Your task to perform on an android device: Add apple airpods to the cart on ebay.com Image 0: 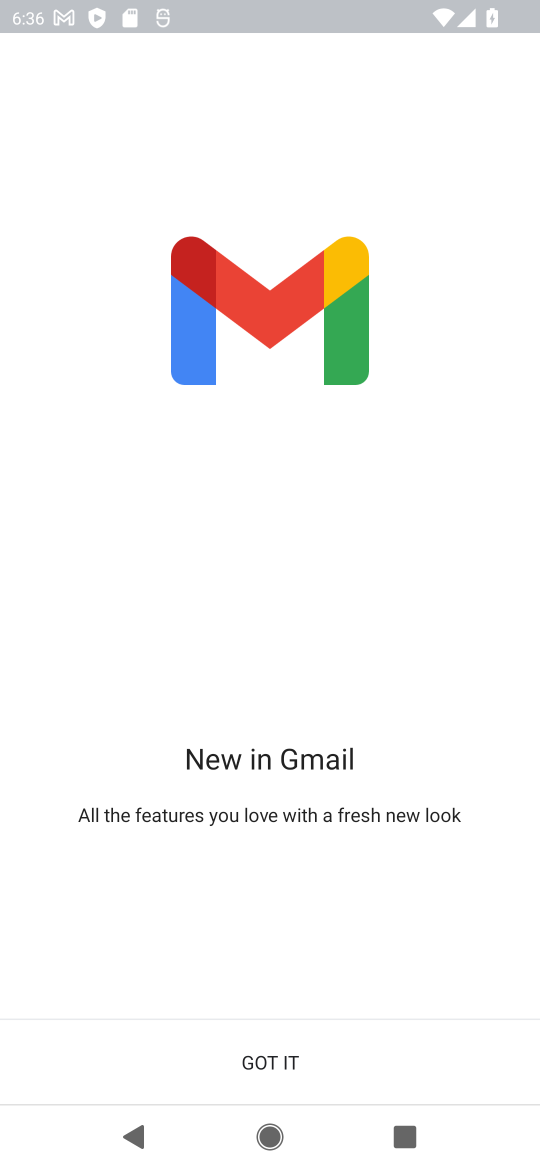
Step 0: press home button
Your task to perform on an android device: Add apple airpods to the cart on ebay.com Image 1: 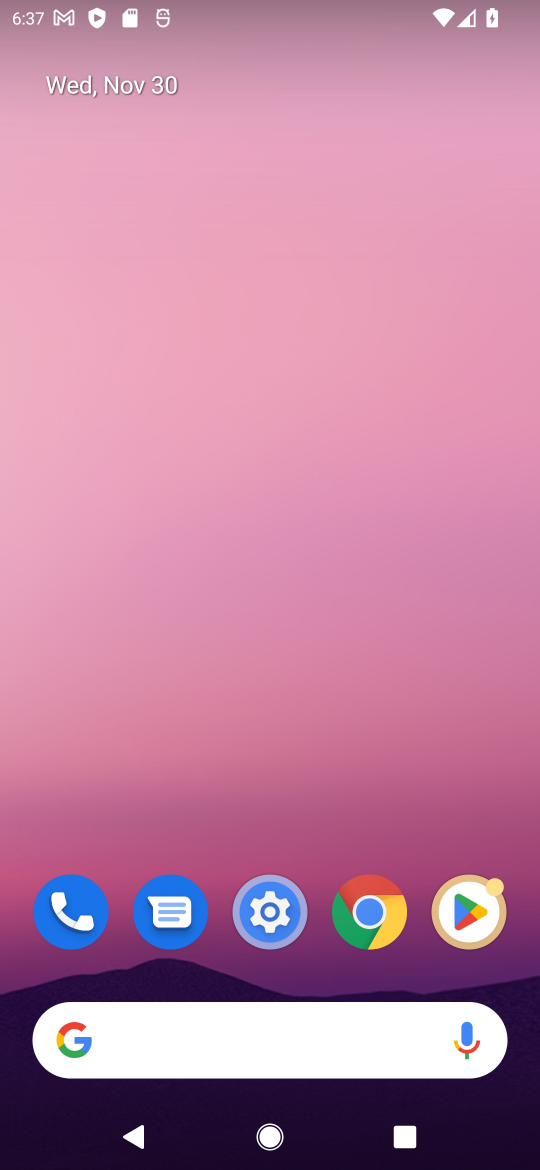
Step 1: click (303, 1039)
Your task to perform on an android device: Add apple airpods to the cart on ebay.com Image 2: 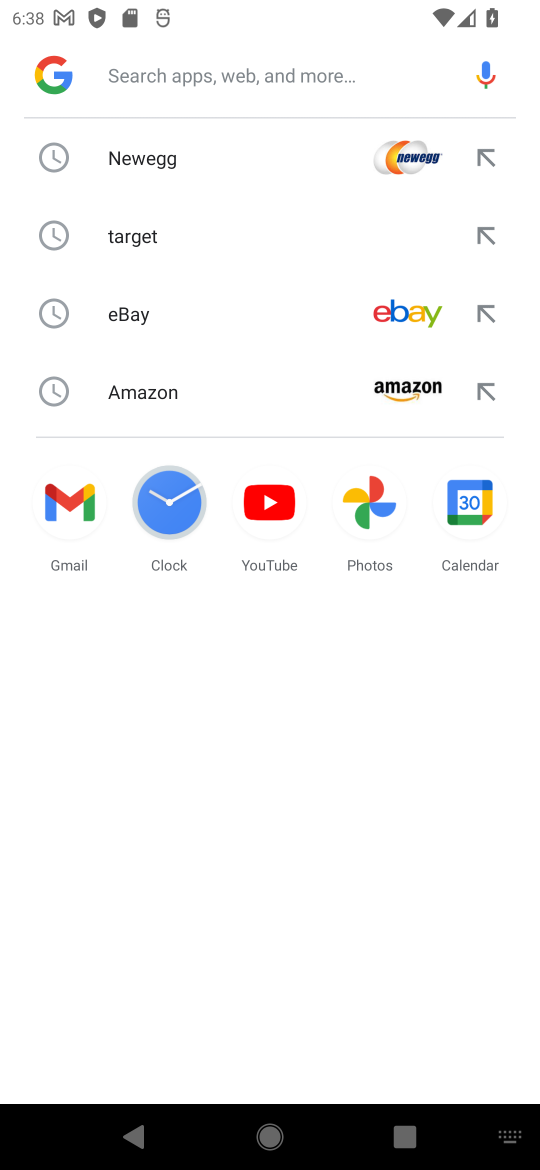
Step 2: click (135, 310)
Your task to perform on an android device: Add apple airpods to the cart on ebay.com Image 3: 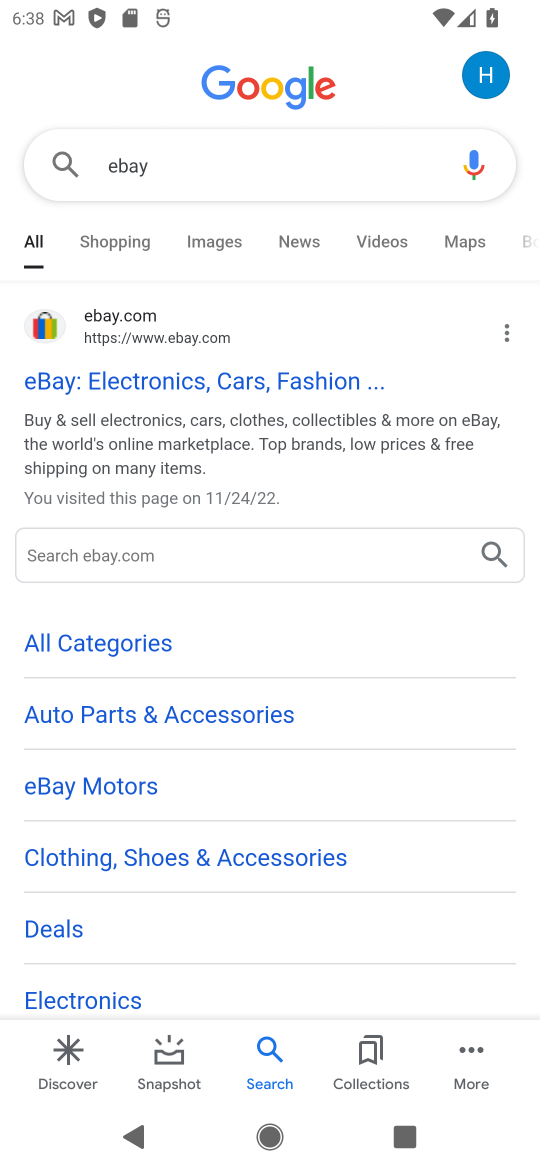
Step 3: click (158, 374)
Your task to perform on an android device: Add apple airpods to the cart on ebay.com Image 4: 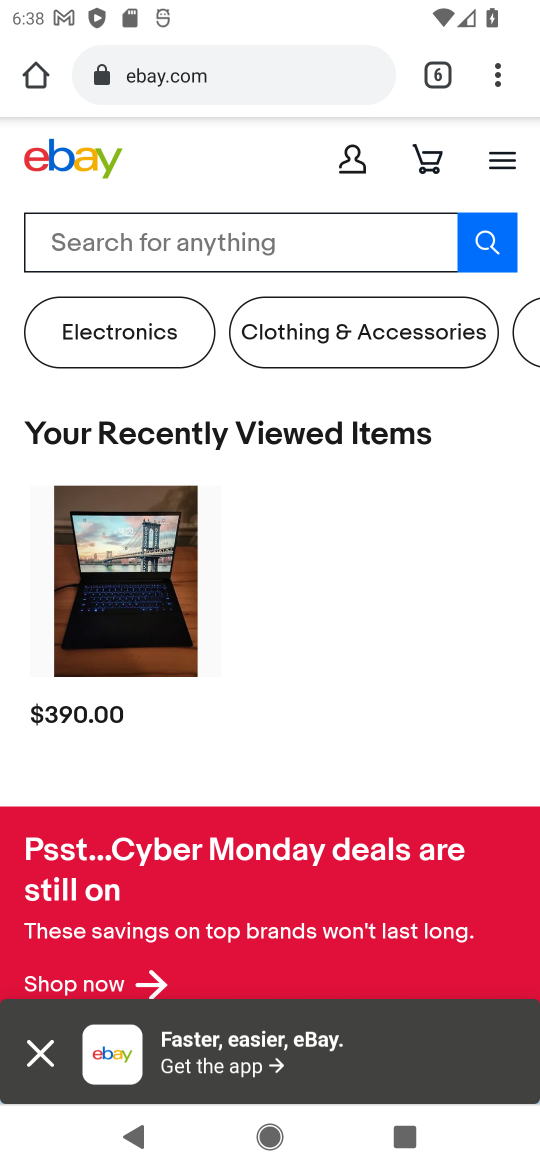
Step 4: click (146, 233)
Your task to perform on an android device: Add apple airpods to the cart on ebay.com Image 5: 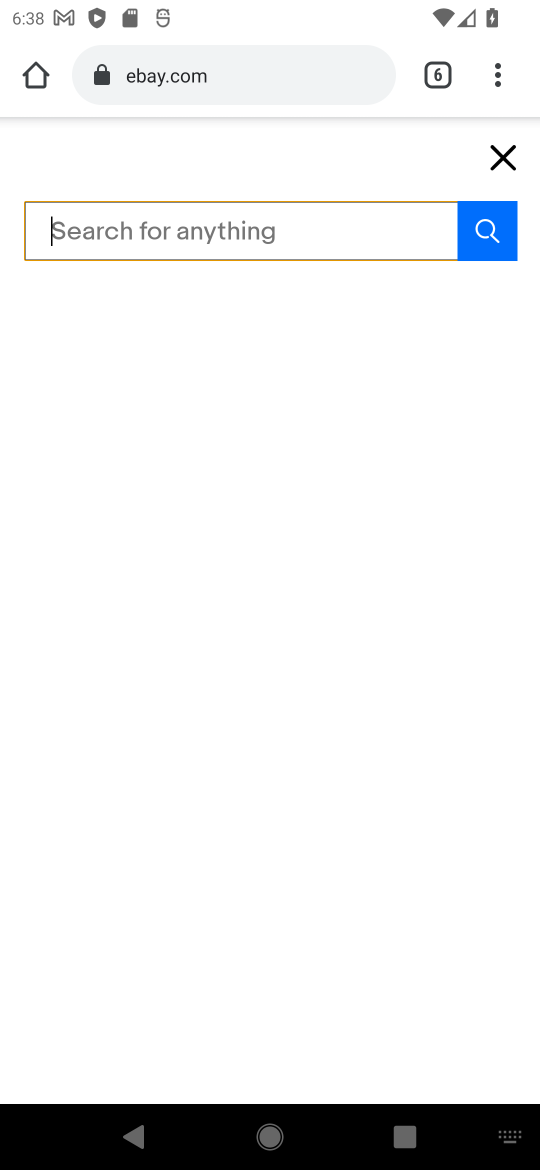
Step 5: type "apple airpods "
Your task to perform on an android device: Add apple airpods to the cart on ebay.com Image 6: 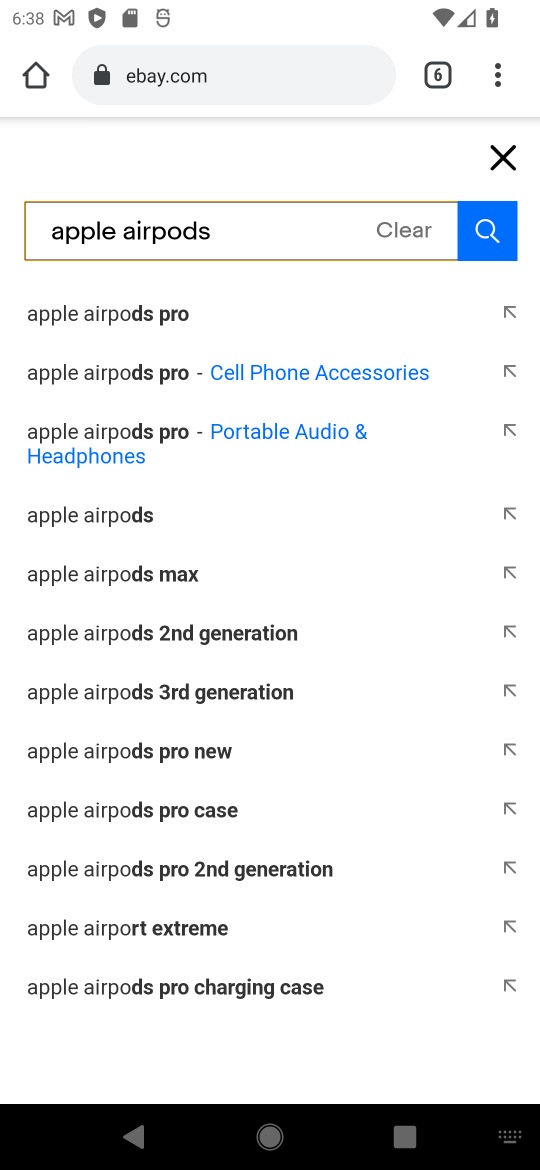
Step 6: click (94, 307)
Your task to perform on an android device: Add apple airpods to the cart on ebay.com Image 7: 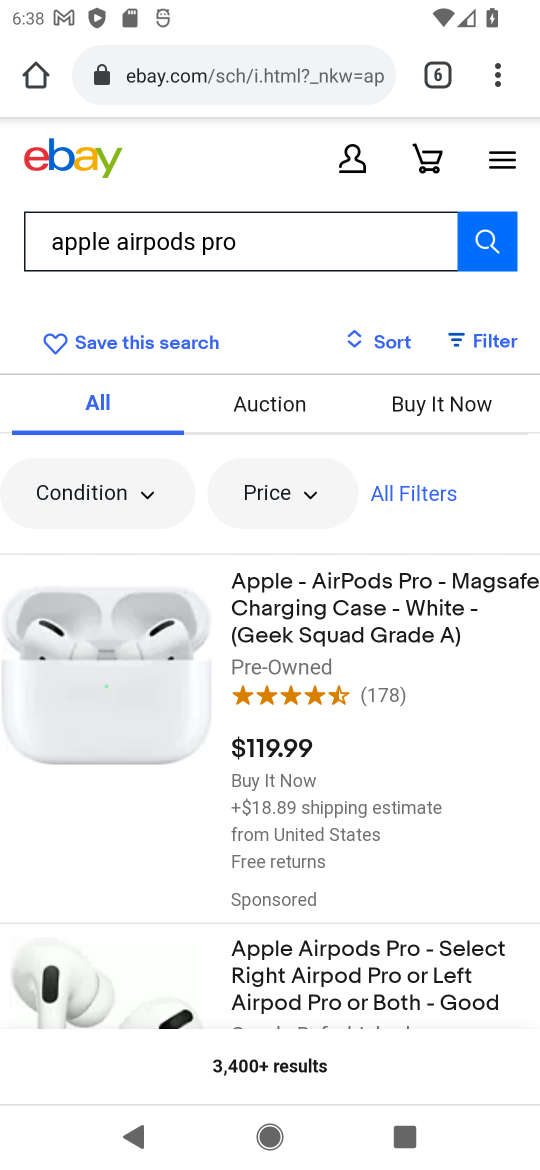
Step 7: click (275, 628)
Your task to perform on an android device: Add apple airpods to the cart on ebay.com Image 8: 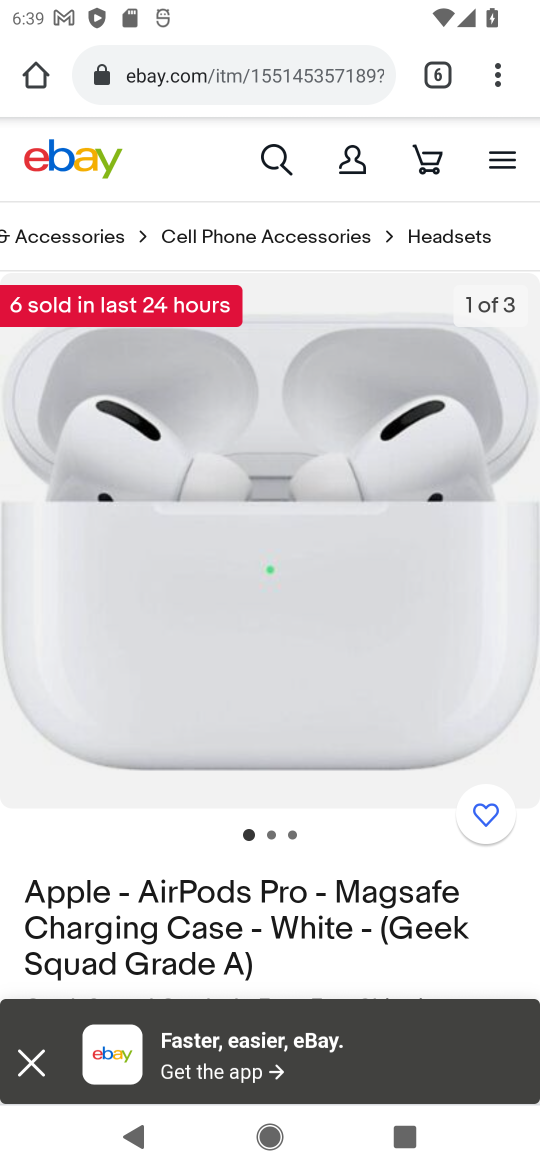
Step 8: drag from (316, 822) to (308, 525)
Your task to perform on an android device: Add apple airpods to the cart on ebay.com Image 9: 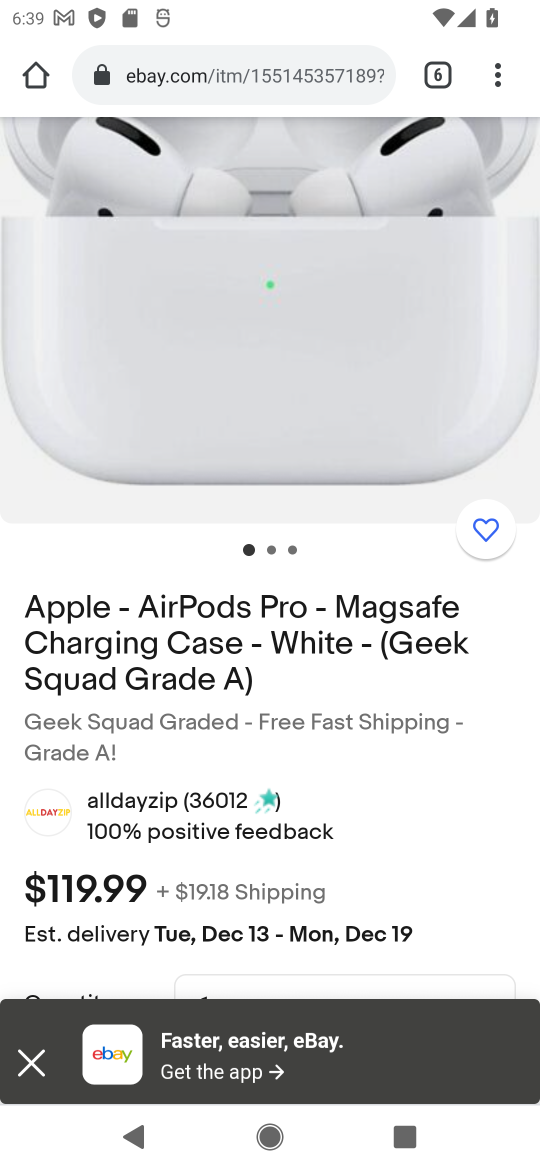
Step 9: drag from (354, 812) to (334, 491)
Your task to perform on an android device: Add apple airpods to the cart on ebay.com Image 10: 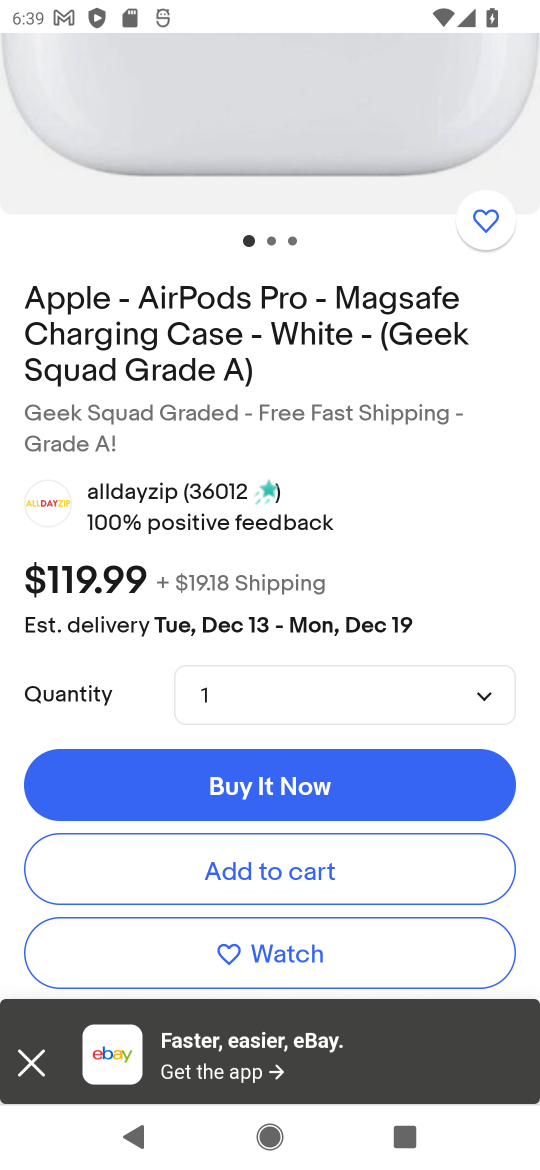
Step 10: click (253, 877)
Your task to perform on an android device: Add apple airpods to the cart on ebay.com Image 11: 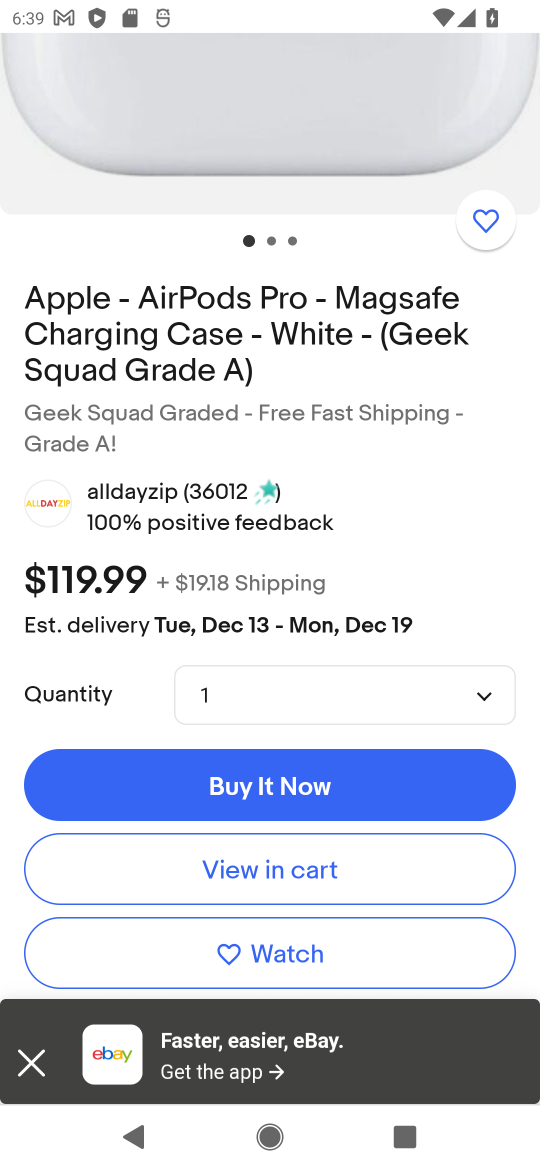
Step 11: task complete